Your task to perform on an android device: Is it going to rain tomorrow? Image 0: 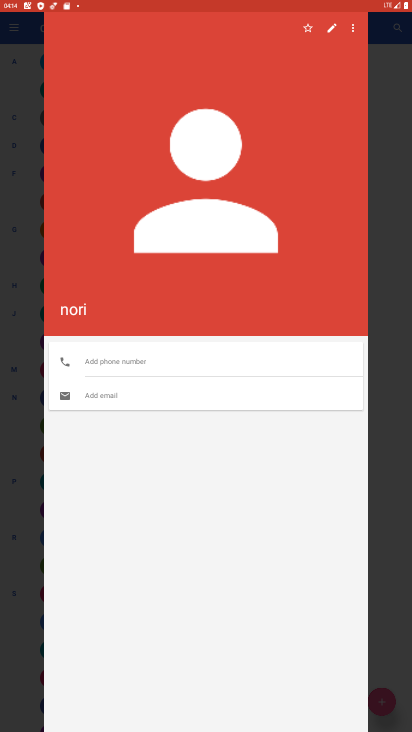
Step 0: press home button
Your task to perform on an android device: Is it going to rain tomorrow? Image 1: 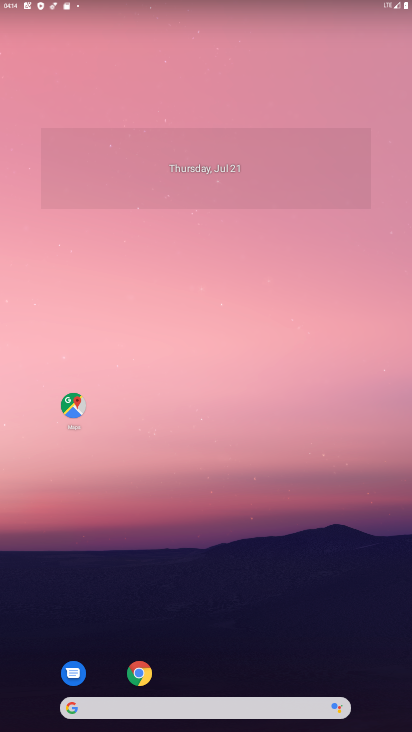
Step 1: drag from (322, 654) to (217, 236)
Your task to perform on an android device: Is it going to rain tomorrow? Image 2: 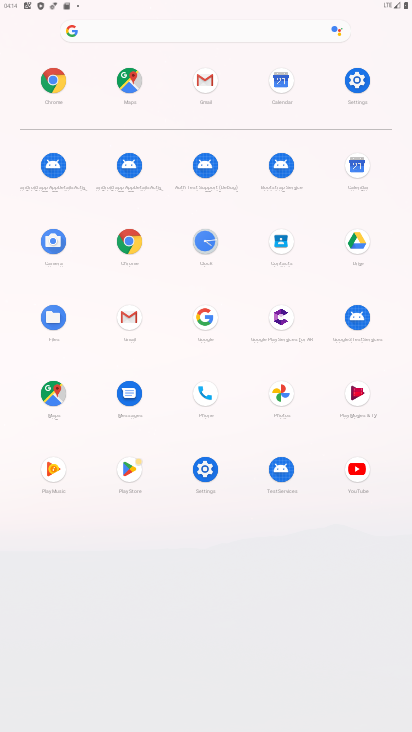
Step 2: click (124, 237)
Your task to perform on an android device: Is it going to rain tomorrow? Image 3: 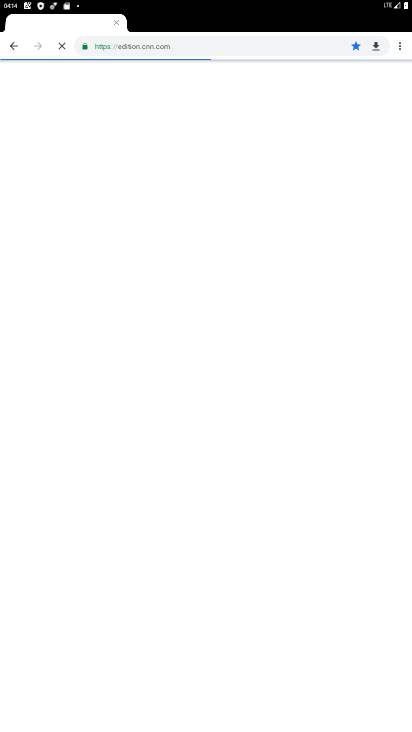
Step 3: click (155, 38)
Your task to perform on an android device: Is it going to rain tomorrow? Image 4: 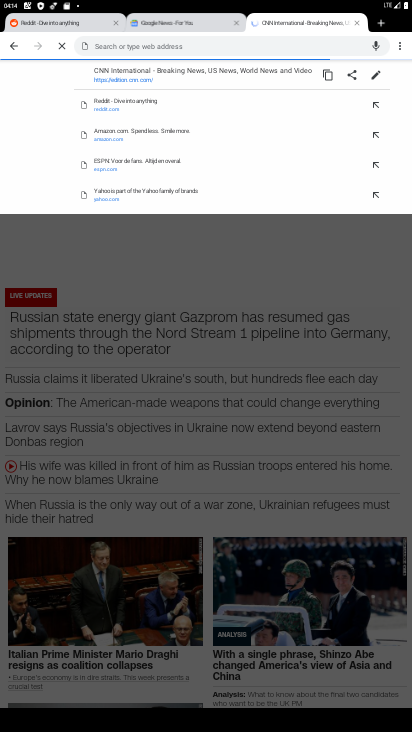
Step 4: type "weather"
Your task to perform on an android device: Is it going to rain tomorrow? Image 5: 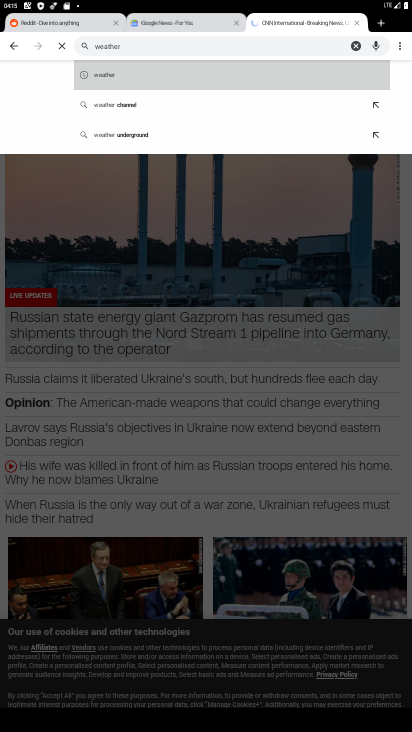
Step 5: click (140, 81)
Your task to perform on an android device: Is it going to rain tomorrow? Image 6: 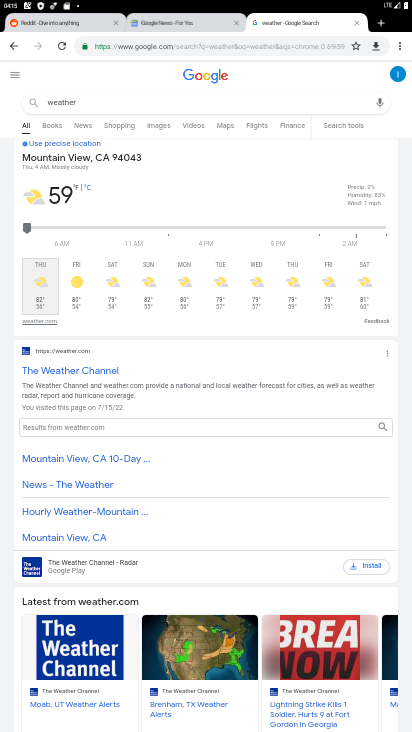
Step 6: click (71, 281)
Your task to perform on an android device: Is it going to rain tomorrow? Image 7: 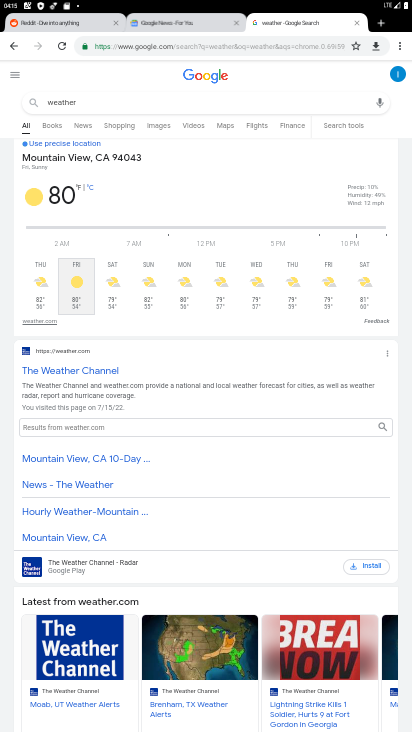
Step 7: task complete